Your task to perform on an android device: Open Yahoo.com Image 0: 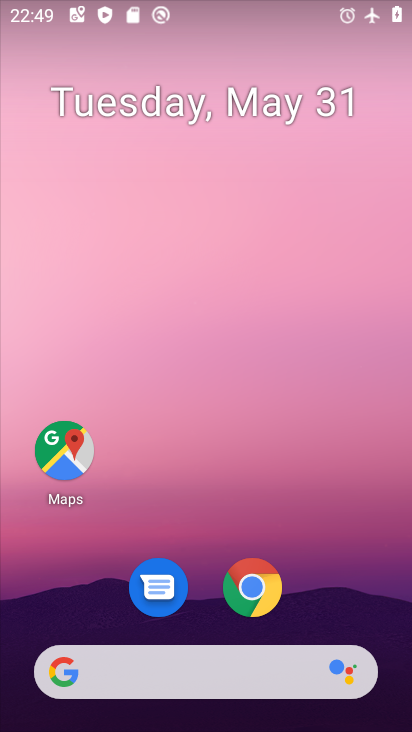
Step 0: drag from (336, 607) to (316, 168)
Your task to perform on an android device: Open Yahoo.com Image 1: 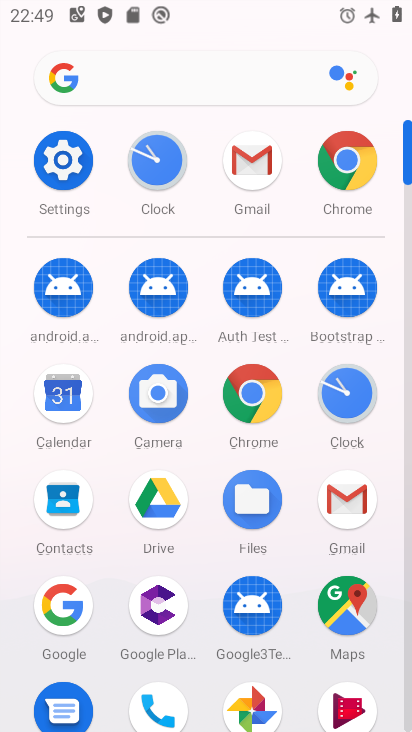
Step 1: click (259, 404)
Your task to perform on an android device: Open Yahoo.com Image 2: 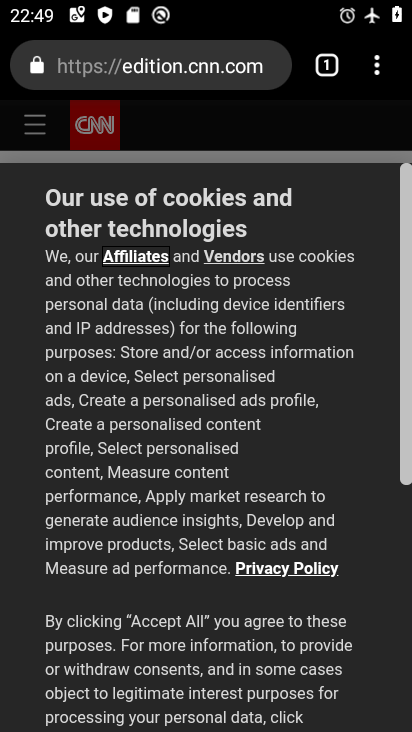
Step 2: click (209, 70)
Your task to perform on an android device: Open Yahoo.com Image 3: 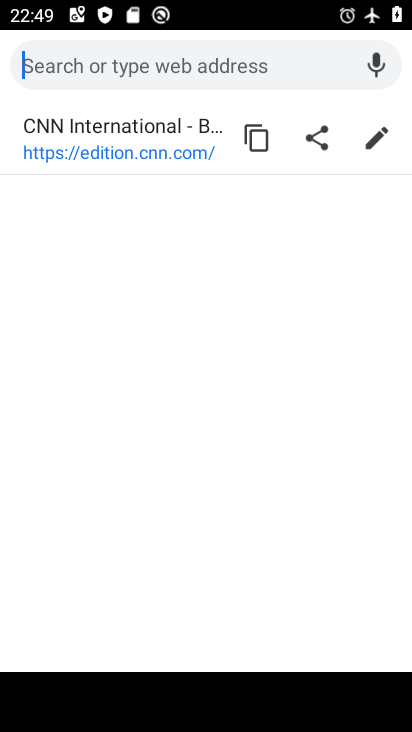
Step 3: type "yahoo.com"
Your task to perform on an android device: Open Yahoo.com Image 4: 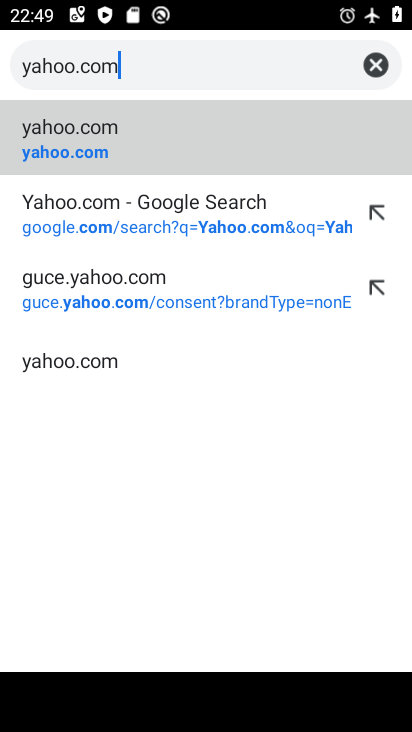
Step 4: click (95, 154)
Your task to perform on an android device: Open Yahoo.com Image 5: 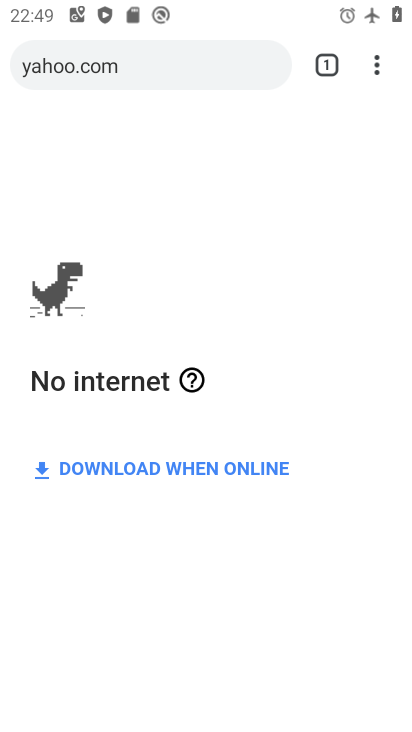
Step 5: task complete